Your task to perform on an android device: Open notification settings Image 0: 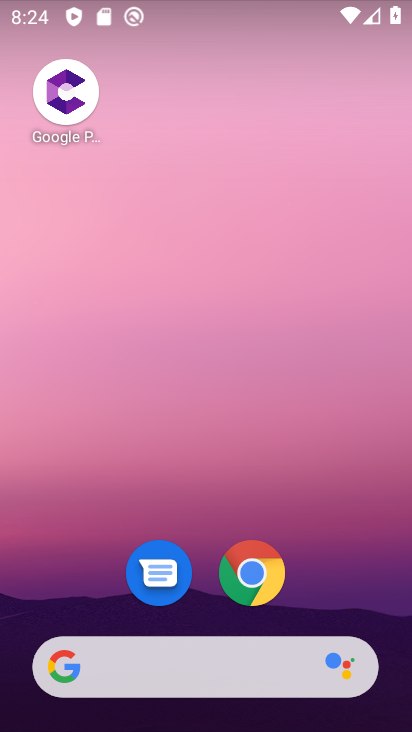
Step 0: drag from (346, 580) to (222, 38)
Your task to perform on an android device: Open notification settings Image 1: 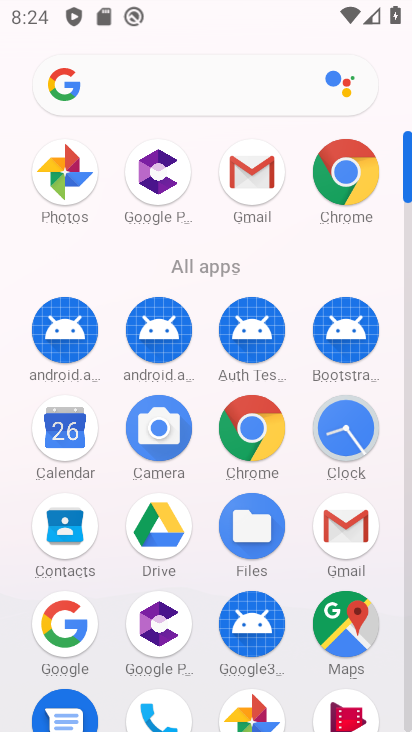
Step 1: drag from (12, 590) to (13, 297)
Your task to perform on an android device: Open notification settings Image 2: 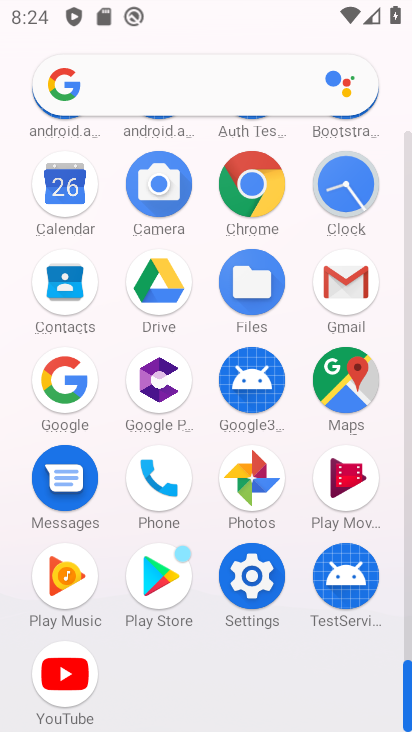
Step 2: click (255, 573)
Your task to perform on an android device: Open notification settings Image 3: 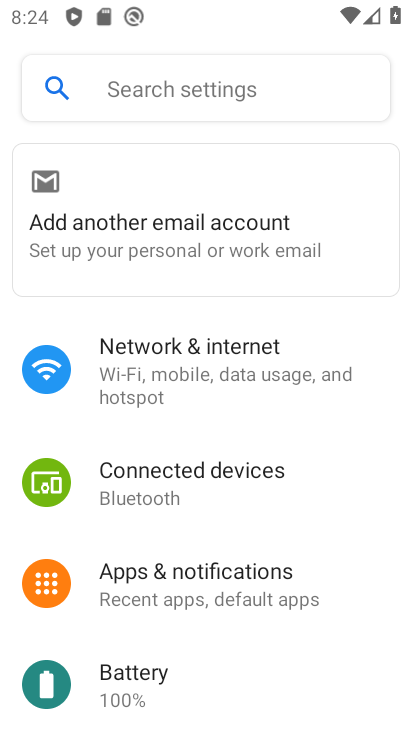
Step 3: click (192, 580)
Your task to perform on an android device: Open notification settings Image 4: 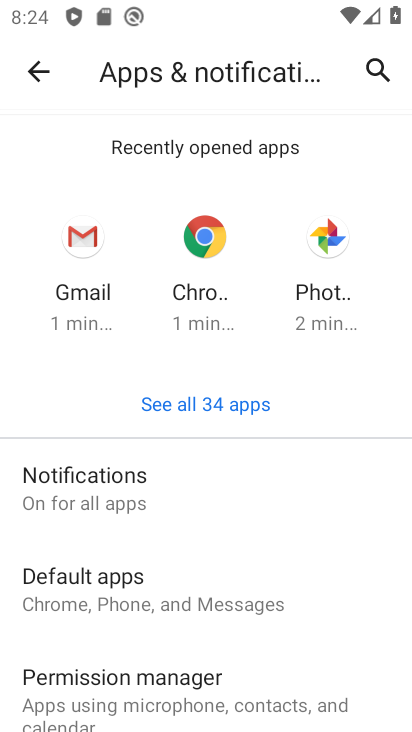
Step 4: click (145, 483)
Your task to perform on an android device: Open notification settings Image 5: 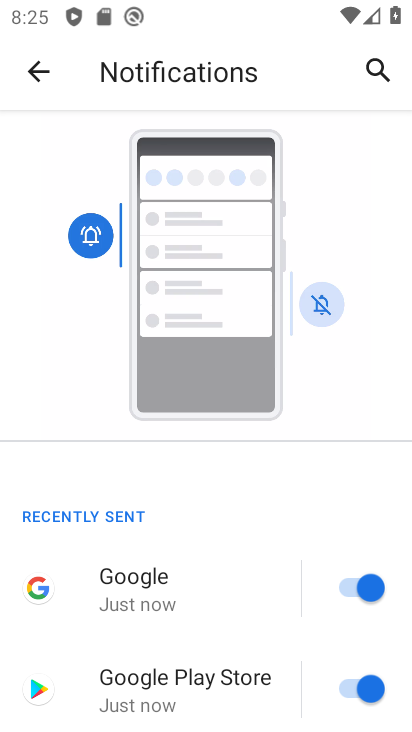
Step 5: task complete